Your task to perform on an android device: open a bookmark in the chrome app Image 0: 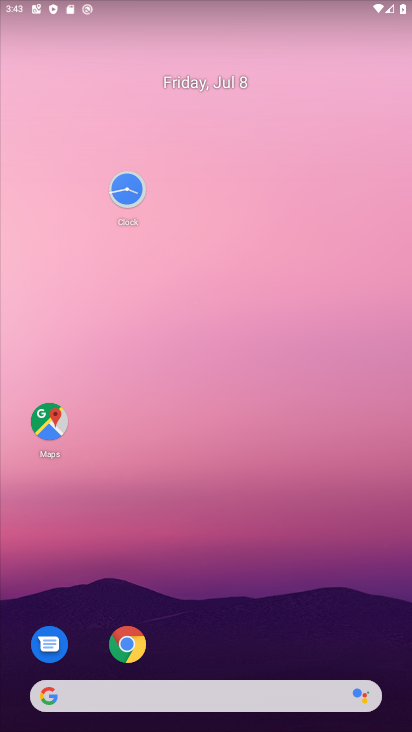
Step 0: click (218, 317)
Your task to perform on an android device: open a bookmark in the chrome app Image 1: 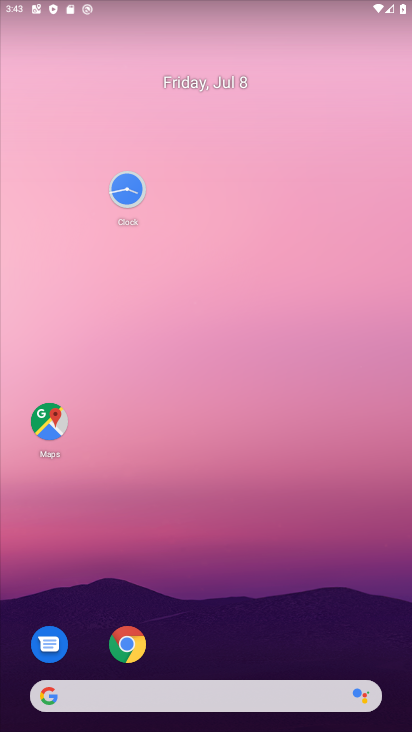
Step 1: drag from (120, 295) to (90, 116)
Your task to perform on an android device: open a bookmark in the chrome app Image 2: 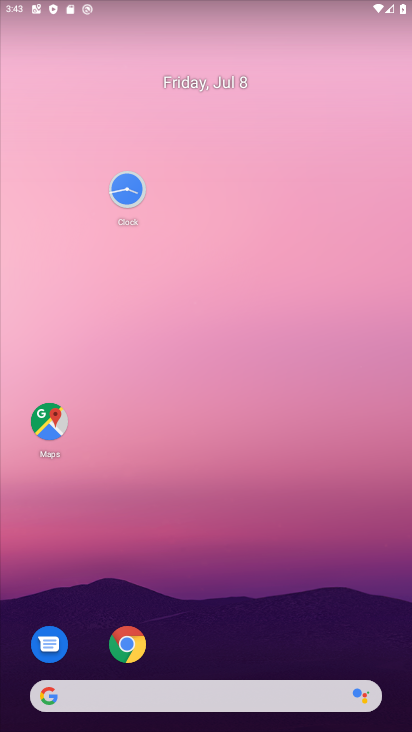
Step 2: click (153, 142)
Your task to perform on an android device: open a bookmark in the chrome app Image 3: 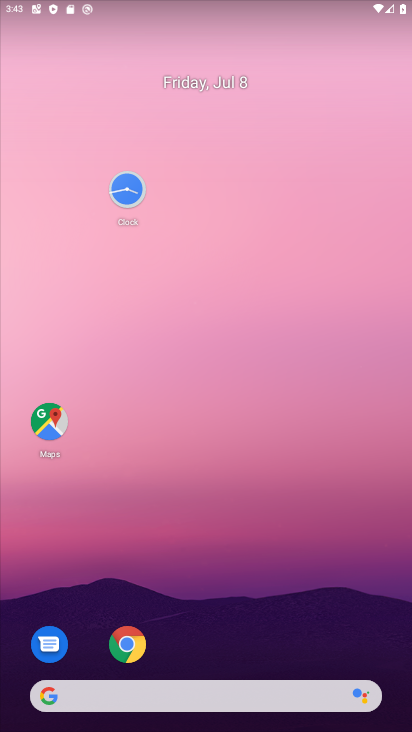
Step 3: drag from (223, 681) to (274, 84)
Your task to perform on an android device: open a bookmark in the chrome app Image 4: 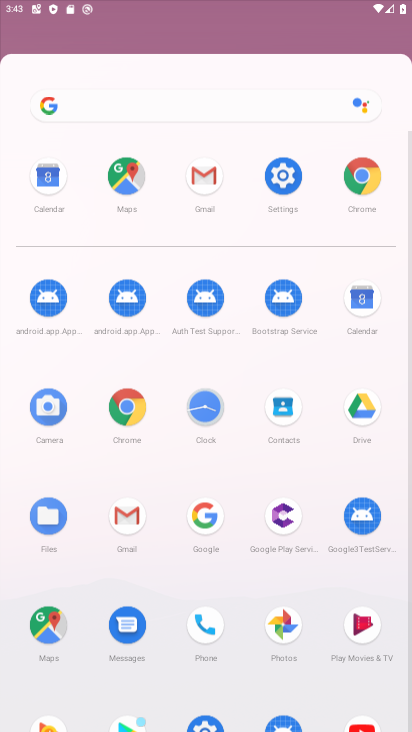
Step 4: drag from (284, 585) to (237, 7)
Your task to perform on an android device: open a bookmark in the chrome app Image 5: 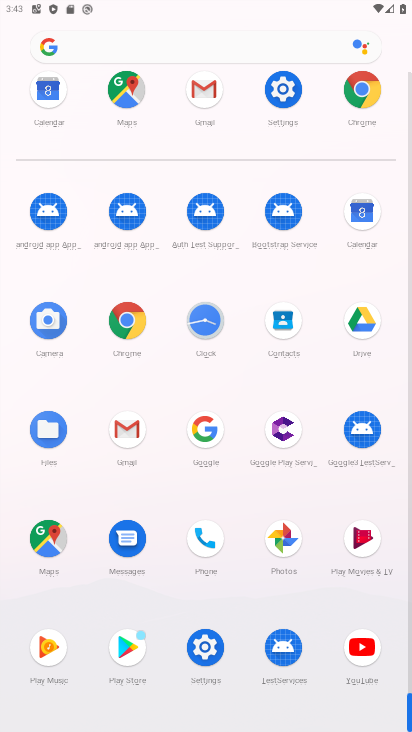
Step 5: drag from (243, 549) to (188, 40)
Your task to perform on an android device: open a bookmark in the chrome app Image 6: 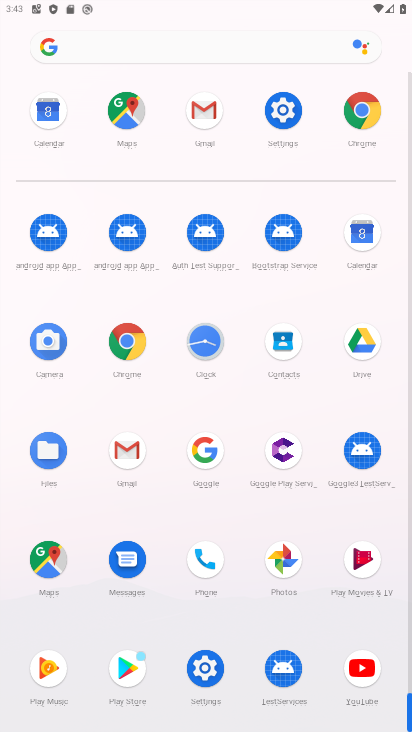
Step 6: drag from (278, 464) to (192, 1)
Your task to perform on an android device: open a bookmark in the chrome app Image 7: 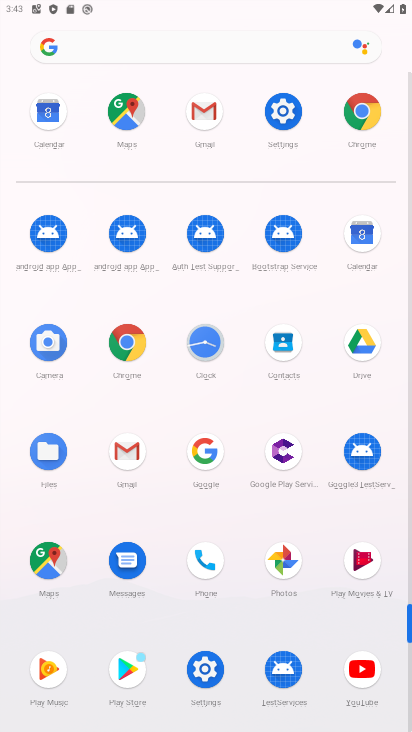
Step 7: click (356, 120)
Your task to perform on an android device: open a bookmark in the chrome app Image 8: 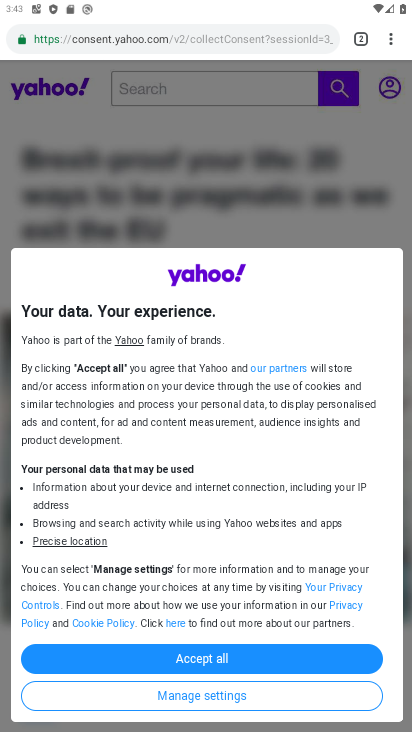
Step 8: click (386, 50)
Your task to perform on an android device: open a bookmark in the chrome app Image 9: 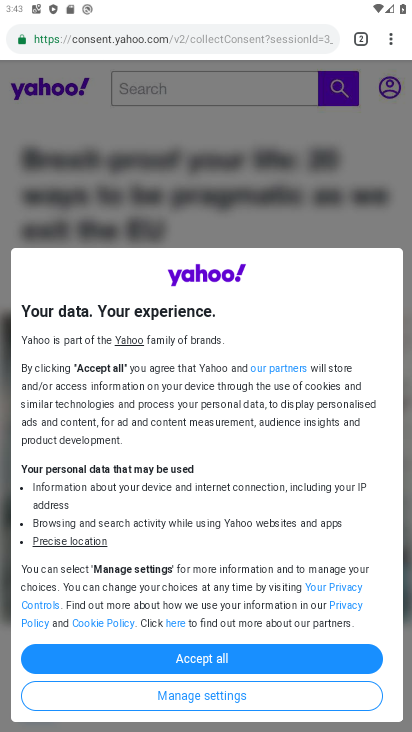
Step 9: click (391, 47)
Your task to perform on an android device: open a bookmark in the chrome app Image 10: 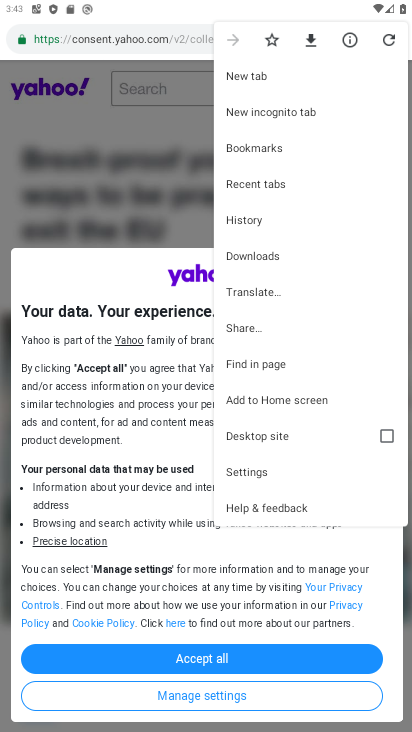
Step 10: click (391, 47)
Your task to perform on an android device: open a bookmark in the chrome app Image 11: 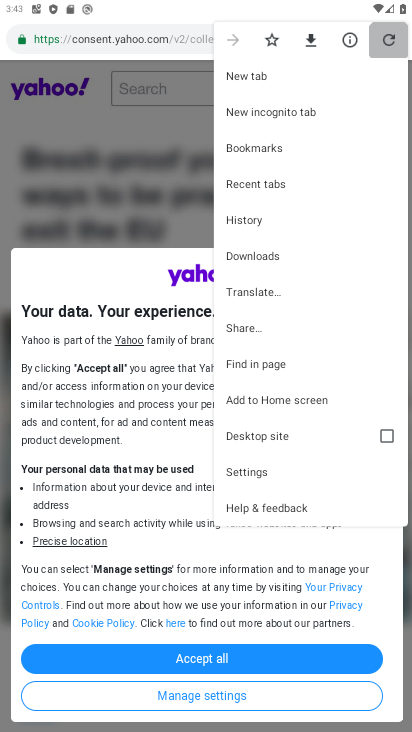
Step 11: click (391, 47)
Your task to perform on an android device: open a bookmark in the chrome app Image 12: 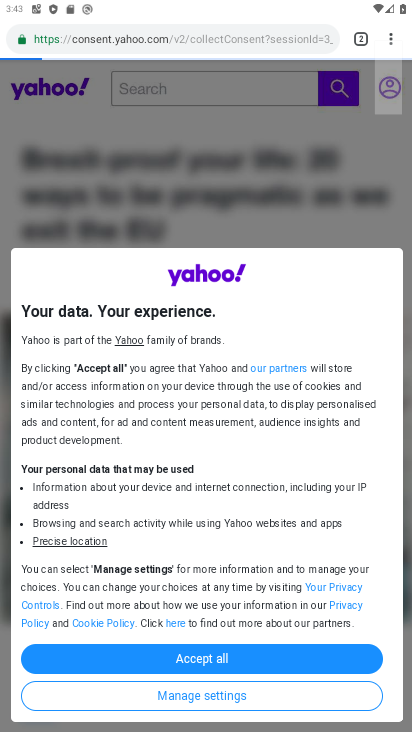
Step 12: click (391, 47)
Your task to perform on an android device: open a bookmark in the chrome app Image 13: 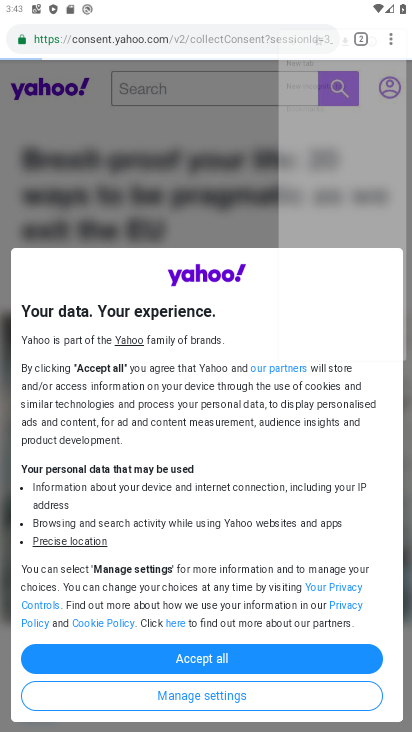
Step 13: click (391, 47)
Your task to perform on an android device: open a bookmark in the chrome app Image 14: 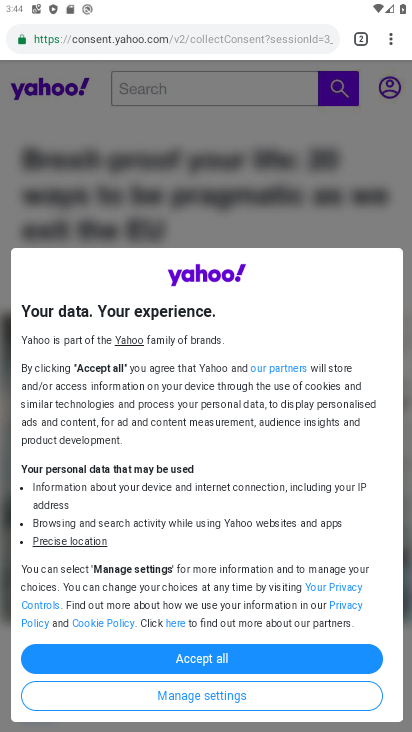
Step 14: drag from (389, 43) to (260, 145)
Your task to perform on an android device: open a bookmark in the chrome app Image 15: 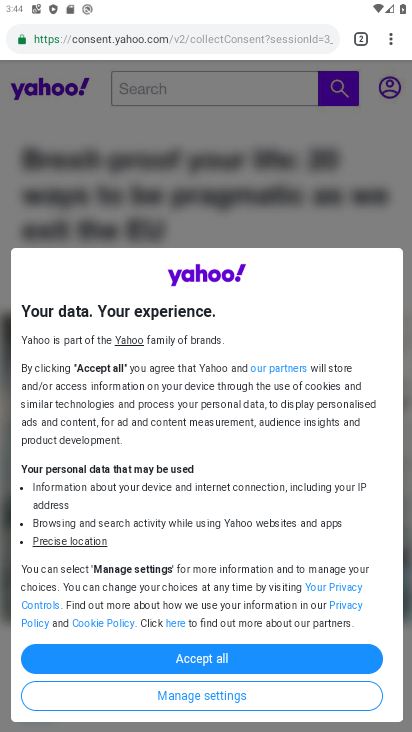
Step 15: click (264, 138)
Your task to perform on an android device: open a bookmark in the chrome app Image 16: 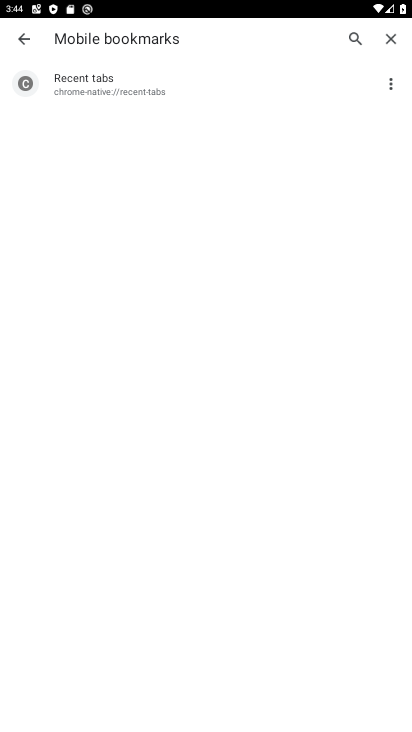
Step 16: task complete